Your task to perform on an android device: see sites visited before in the chrome app Image 0: 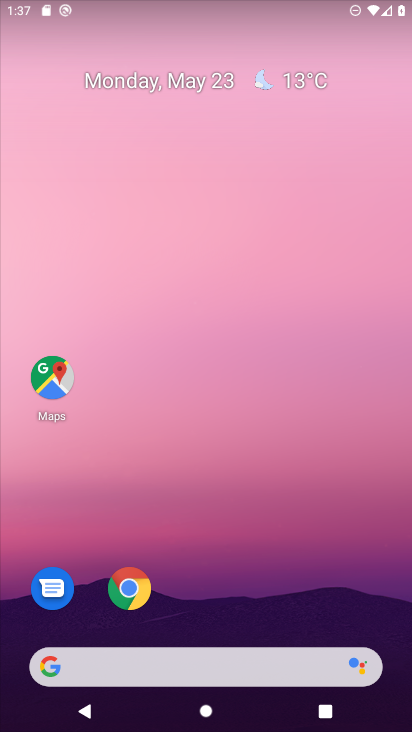
Step 0: click (122, 583)
Your task to perform on an android device: see sites visited before in the chrome app Image 1: 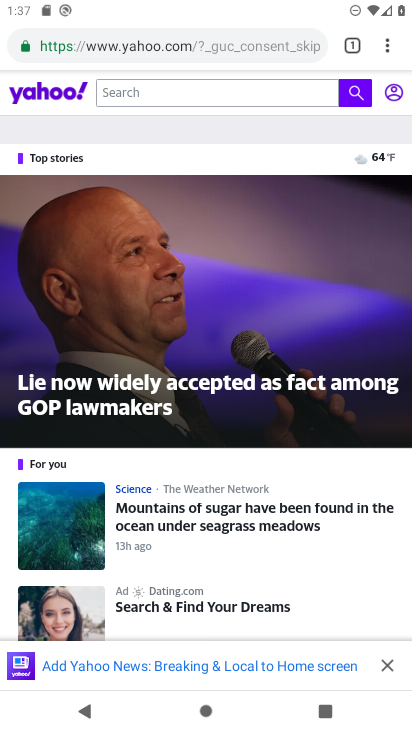
Step 1: task complete